Your task to perform on an android device: Clear all items from cart on costco.com. Search for macbook air on costco.com, select the first entry, add it to the cart, then select checkout. Image 0: 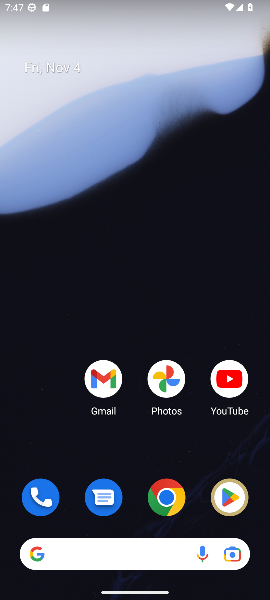
Step 0: click (164, 505)
Your task to perform on an android device: Clear all items from cart on costco.com. Search for macbook air on costco.com, select the first entry, add it to the cart, then select checkout. Image 1: 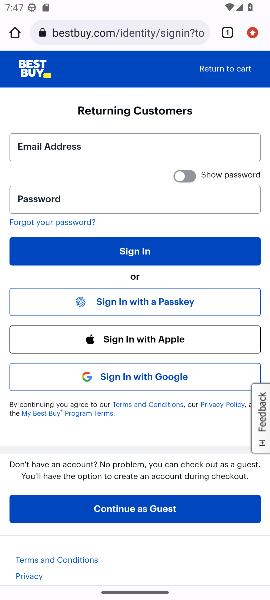
Step 1: click (90, 38)
Your task to perform on an android device: Clear all items from cart on costco.com. Search for macbook air on costco.com, select the first entry, add it to the cart, then select checkout. Image 2: 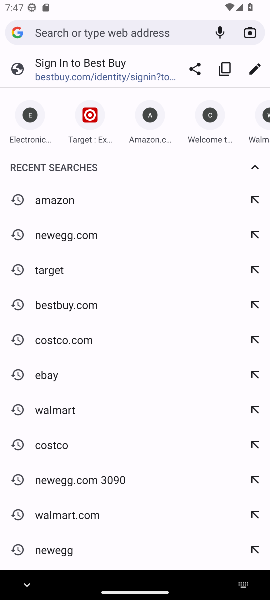
Step 2: click (72, 344)
Your task to perform on an android device: Clear all items from cart on costco.com. Search for macbook air on costco.com, select the first entry, add it to the cart, then select checkout. Image 3: 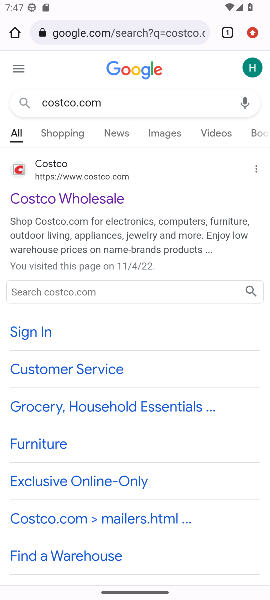
Step 3: click (37, 197)
Your task to perform on an android device: Clear all items from cart on costco.com. Search for macbook air on costco.com, select the first entry, add it to the cart, then select checkout. Image 4: 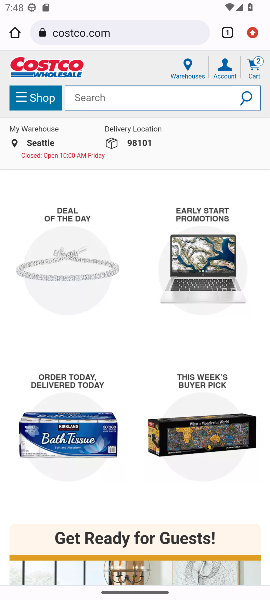
Step 4: click (256, 66)
Your task to perform on an android device: Clear all items from cart on costco.com. Search for macbook air on costco.com, select the first entry, add it to the cart, then select checkout. Image 5: 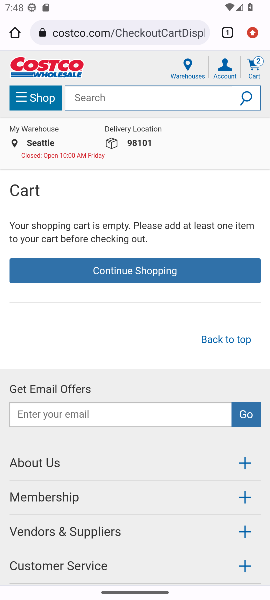
Step 5: click (84, 92)
Your task to perform on an android device: Clear all items from cart on costco.com. Search for macbook air on costco.com, select the first entry, add it to the cart, then select checkout. Image 6: 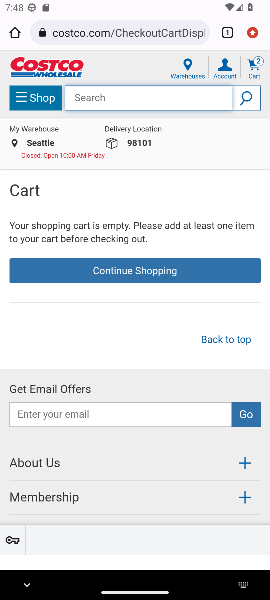
Step 6: type "macbook air"
Your task to perform on an android device: Clear all items from cart on costco.com. Search for macbook air on costco.com, select the first entry, add it to the cart, then select checkout. Image 7: 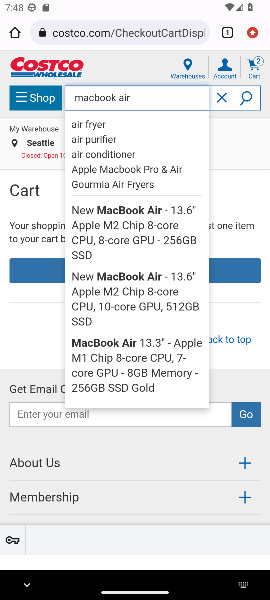
Step 7: click (247, 100)
Your task to perform on an android device: Clear all items from cart on costco.com. Search for macbook air on costco.com, select the first entry, add it to the cart, then select checkout. Image 8: 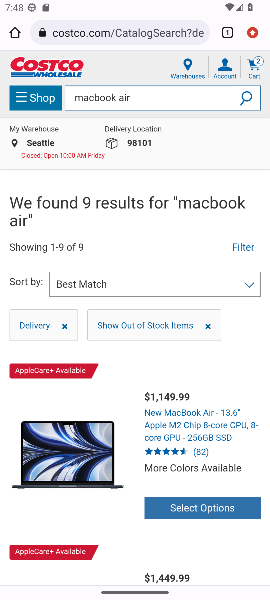
Step 8: click (172, 427)
Your task to perform on an android device: Clear all items from cart on costco.com. Search for macbook air on costco.com, select the first entry, add it to the cart, then select checkout. Image 9: 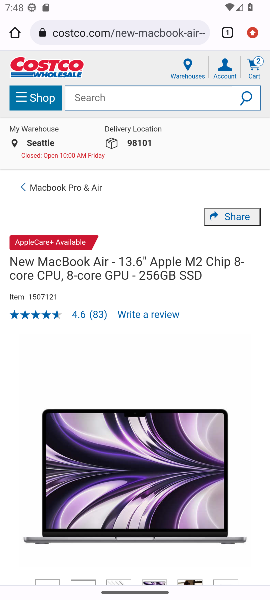
Step 9: drag from (150, 367) to (141, 170)
Your task to perform on an android device: Clear all items from cart on costco.com. Search for macbook air on costco.com, select the first entry, add it to the cart, then select checkout. Image 10: 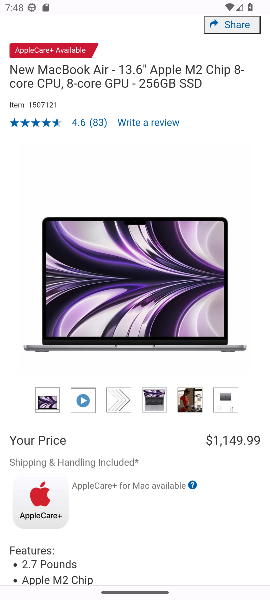
Step 10: drag from (99, 403) to (101, 186)
Your task to perform on an android device: Clear all items from cart on costco.com. Search for macbook air on costco.com, select the first entry, add it to the cart, then select checkout. Image 11: 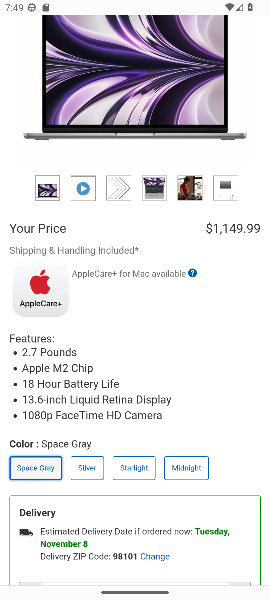
Step 11: drag from (144, 361) to (154, 150)
Your task to perform on an android device: Clear all items from cart on costco.com. Search for macbook air on costco.com, select the first entry, add it to the cart, then select checkout. Image 12: 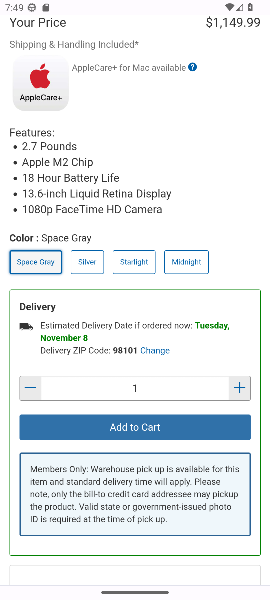
Step 12: click (139, 425)
Your task to perform on an android device: Clear all items from cart on costco.com. Search for macbook air on costco.com, select the first entry, add it to the cart, then select checkout. Image 13: 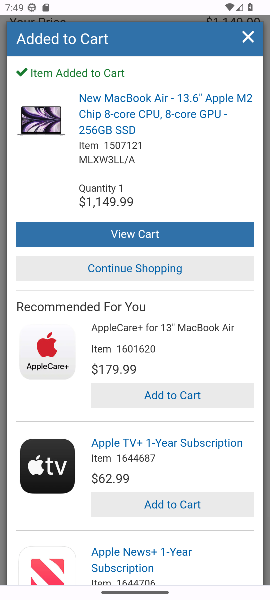
Step 13: click (119, 236)
Your task to perform on an android device: Clear all items from cart on costco.com. Search for macbook air on costco.com, select the first entry, add it to the cart, then select checkout. Image 14: 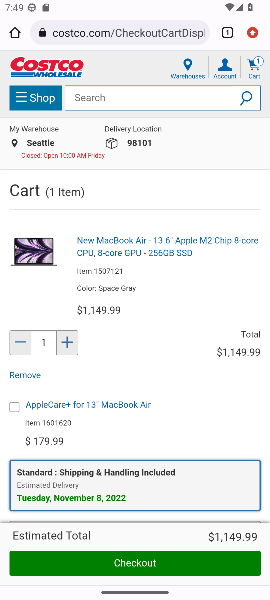
Step 14: click (135, 571)
Your task to perform on an android device: Clear all items from cart on costco.com. Search for macbook air on costco.com, select the first entry, add it to the cart, then select checkout. Image 15: 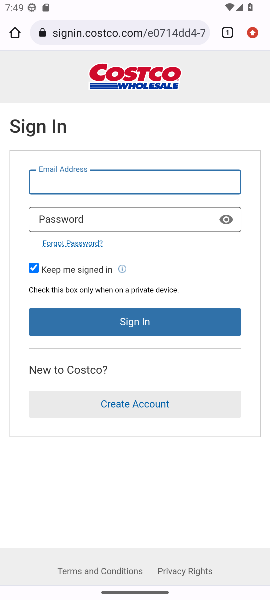
Step 15: task complete